Your task to perform on an android device: Open Chrome and go to the settings page Image 0: 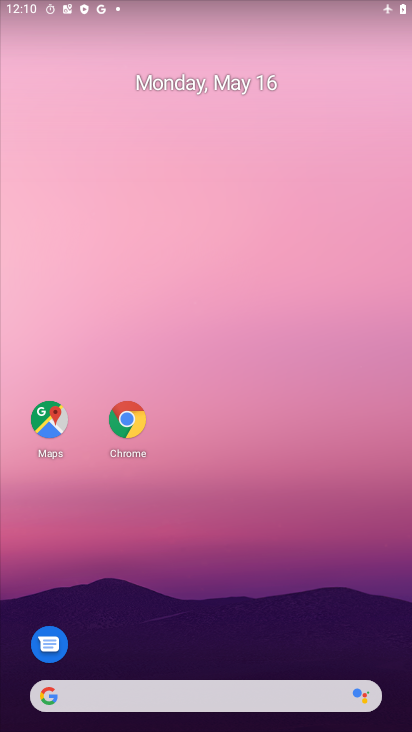
Step 0: click (196, 353)
Your task to perform on an android device: Open Chrome and go to the settings page Image 1: 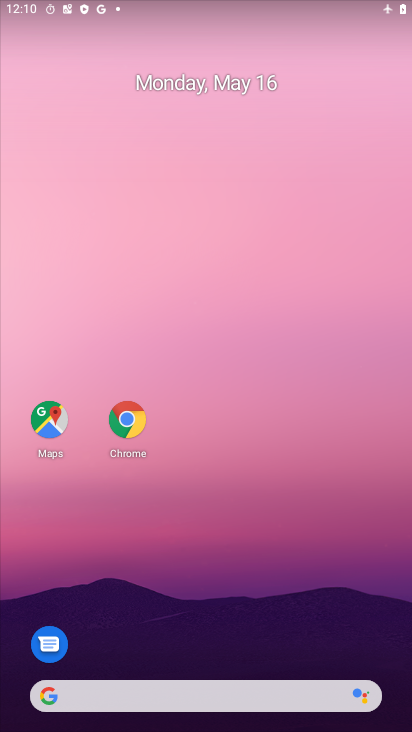
Step 1: drag from (180, 631) to (239, 47)
Your task to perform on an android device: Open Chrome and go to the settings page Image 2: 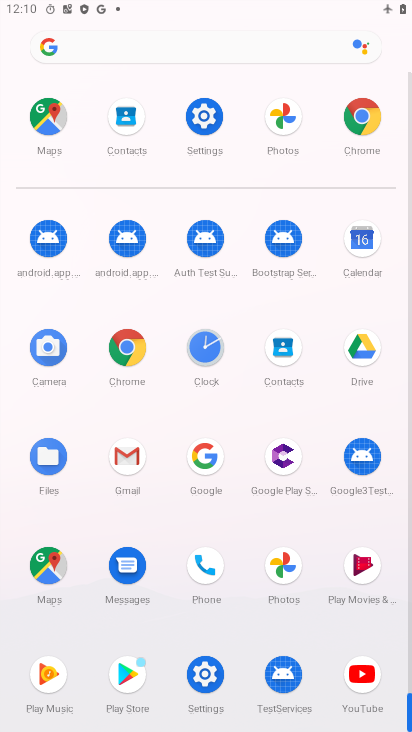
Step 2: click (117, 343)
Your task to perform on an android device: Open Chrome and go to the settings page Image 3: 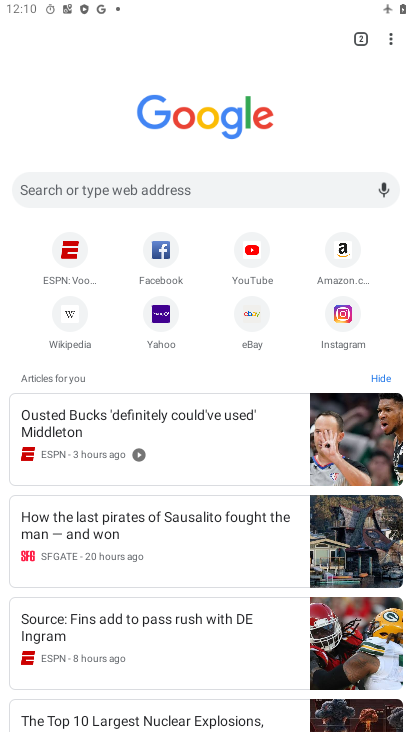
Step 3: drag from (395, 43) to (266, 320)
Your task to perform on an android device: Open Chrome and go to the settings page Image 4: 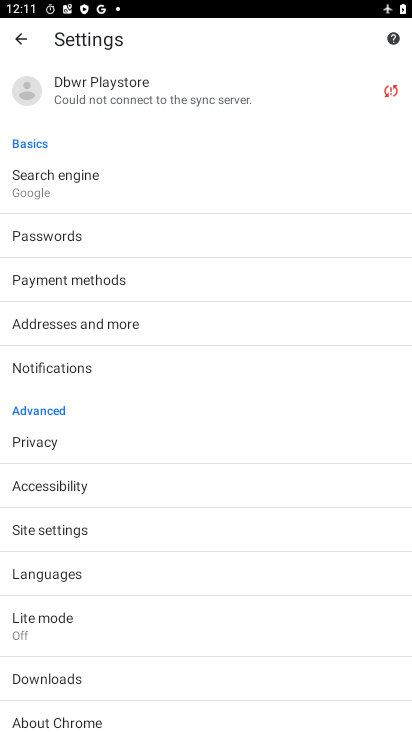
Step 4: click (57, 535)
Your task to perform on an android device: Open Chrome and go to the settings page Image 5: 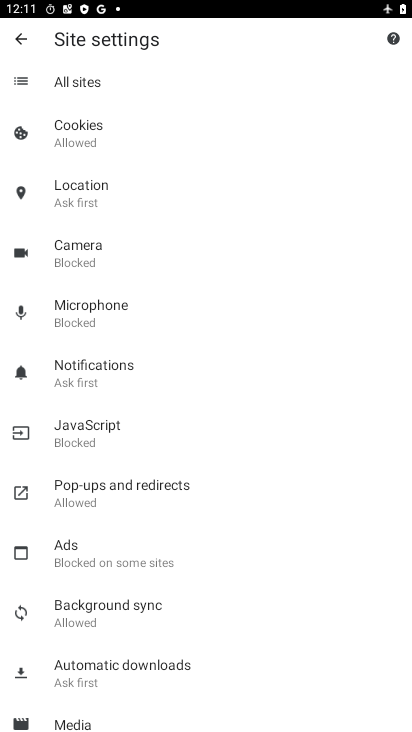
Step 5: task complete